Your task to perform on an android device: Show me productivity apps on the Play Store Image 0: 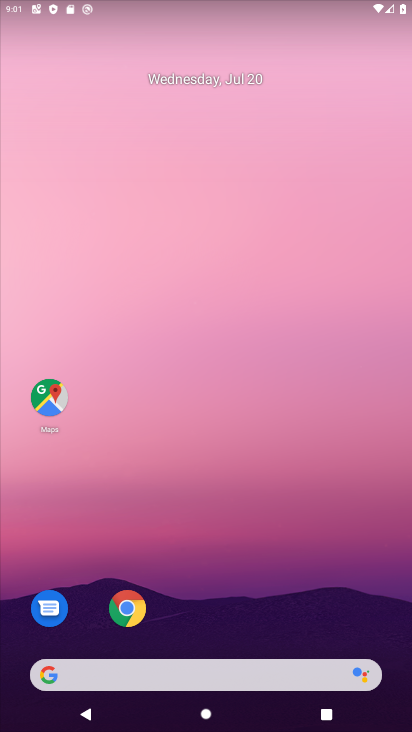
Step 0: drag from (269, 716) to (156, 6)
Your task to perform on an android device: Show me productivity apps on the Play Store Image 1: 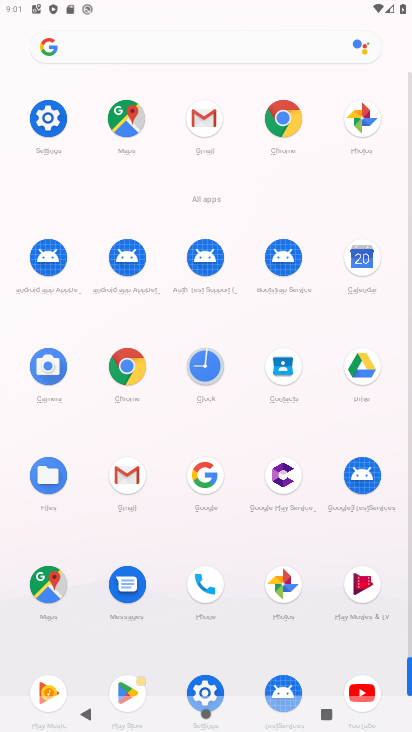
Step 1: drag from (254, 509) to (254, 76)
Your task to perform on an android device: Show me productivity apps on the Play Store Image 2: 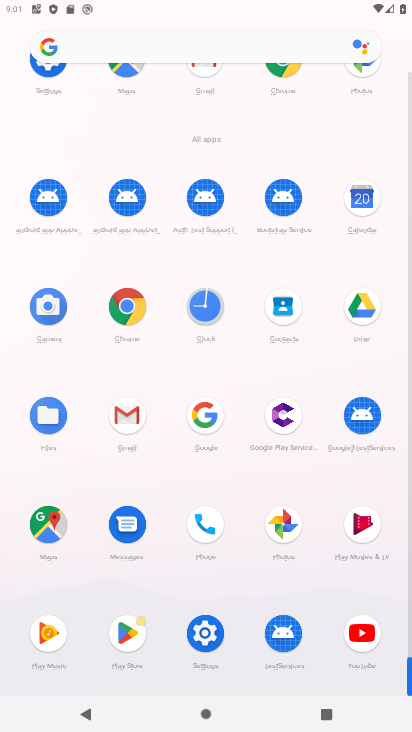
Step 2: click (125, 647)
Your task to perform on an android device: Show me productivity apps on the Play Store Image 3: 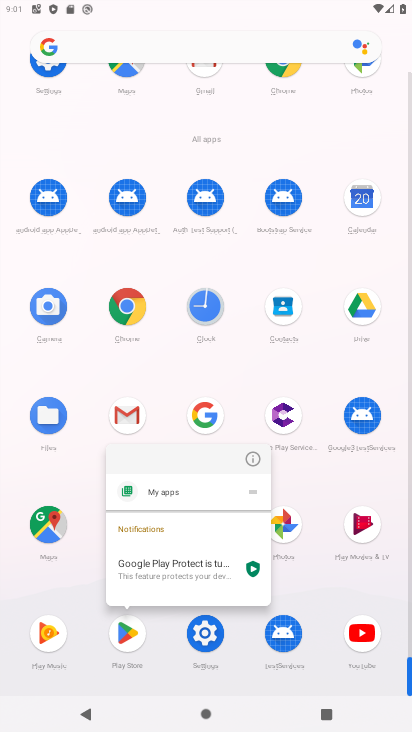
Step 3: click (126, 648)
Your task to perform on an android device: Show me productivity apps on the Play Store Image 4: 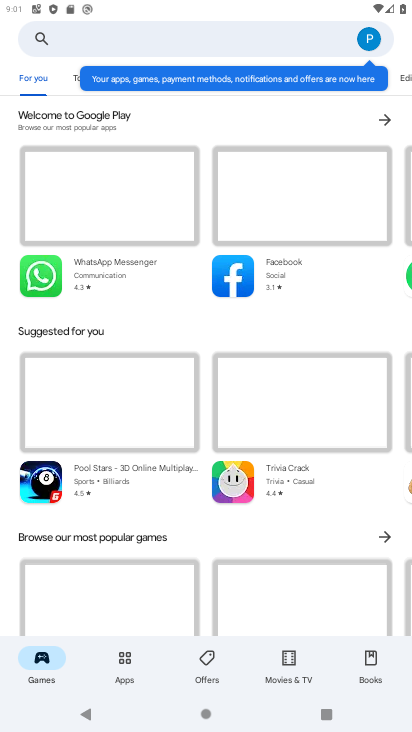
Step 4: click (125, 659)
Your task to perform on an android device: Show me productivity apps on the Play Store Image 5: 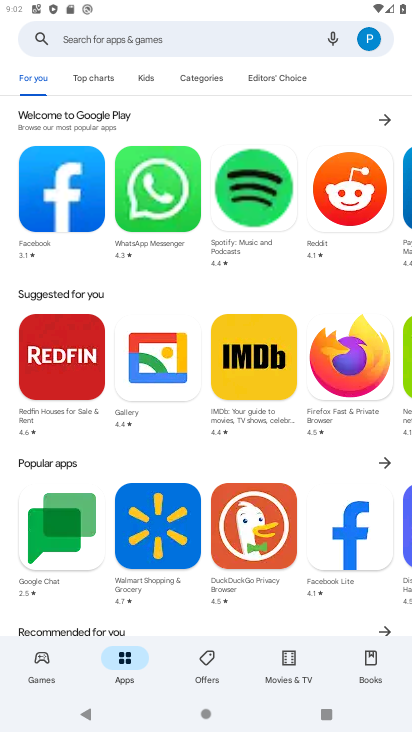
Step 5: click (193, 74)
Your task to perform on an android device: Show me productivity apps on the Play Store Image 6: 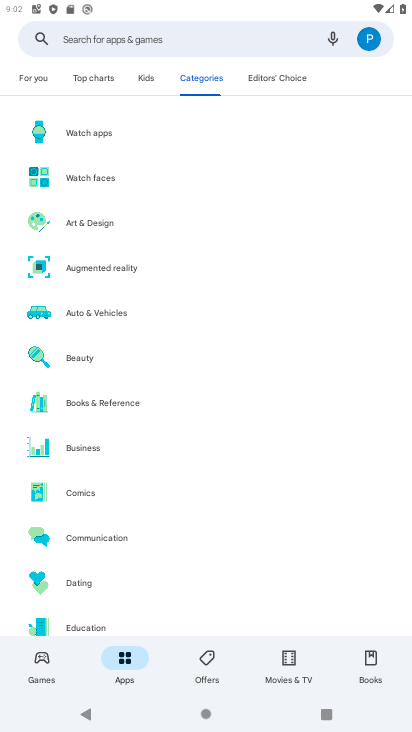
Step 6: drag from (216, 597) to (290, 29)
Your task to perform on an android device: Show me productivity apps on the Play Store Image 7: 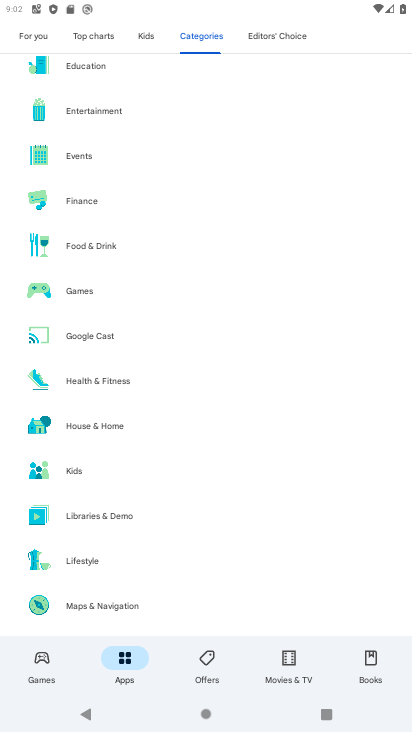
Step 7: drag from (213, 506) to (302, 59)
Your task to perform on an android device: Show me productivity apps on the Play Store Image 8: 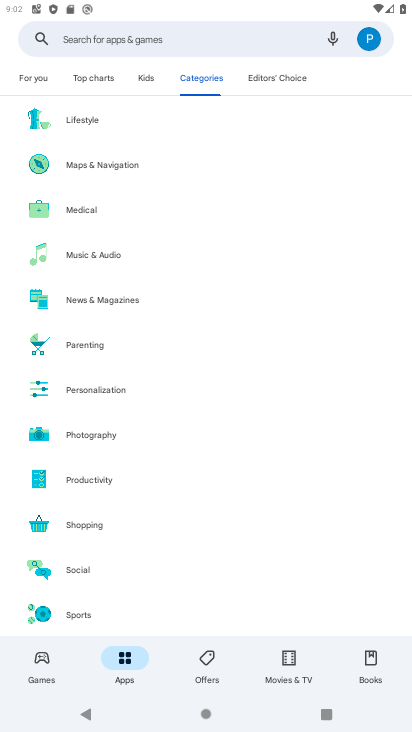
Step 8: click (89, 477)
Your task to perform on an android device: Show me productivity apps on the Play Store Image 9: 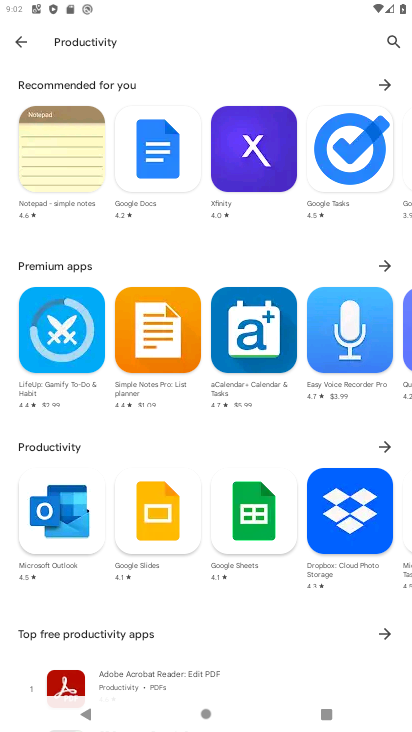
Step 9: task complete